Your task to perform on an android device: change your default location settings in chrome Image 0: 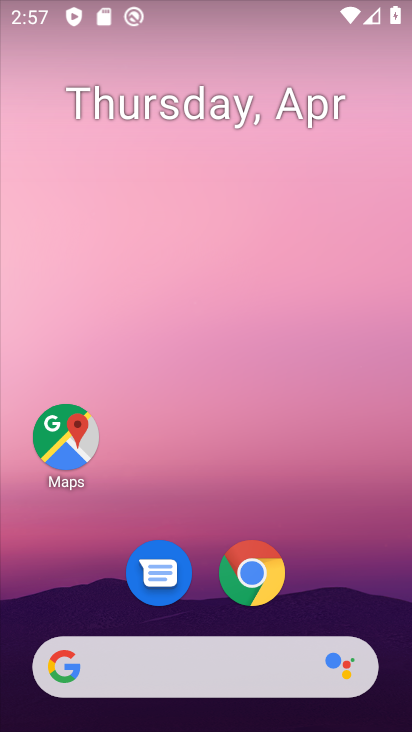
Step 0: drag from (347, 598) to (245, 56)
Your task to perform on an android device: change your default location settings in chrome Image 1: 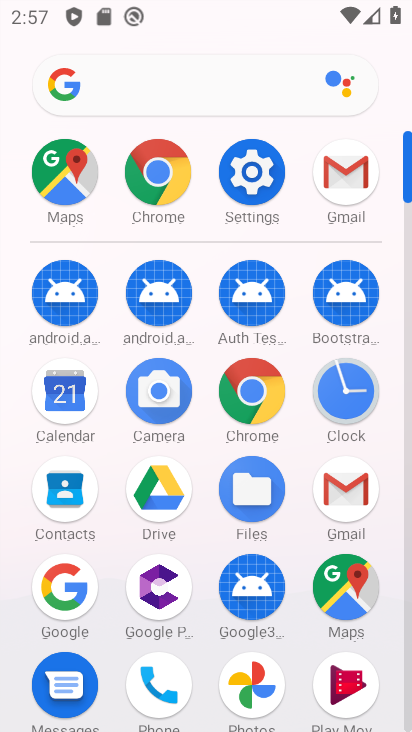
Step 1: click (267, 397)
Your task to perform on an android device: change your default location settings in chrome Image 2: 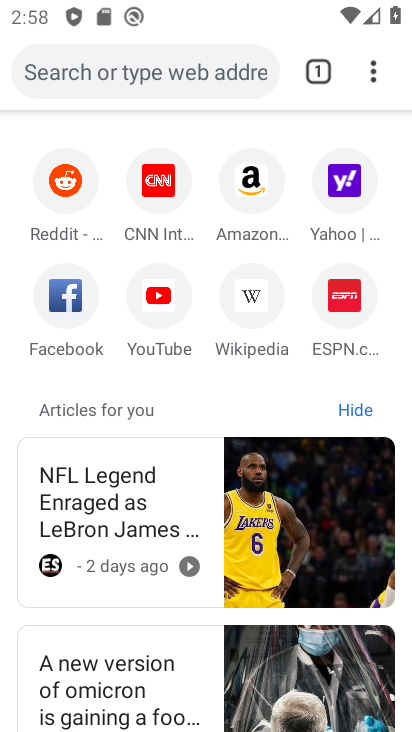
Step 2: click (367, 62)
Your task to perform on an android device: change your default location settings in chrome Image 3: 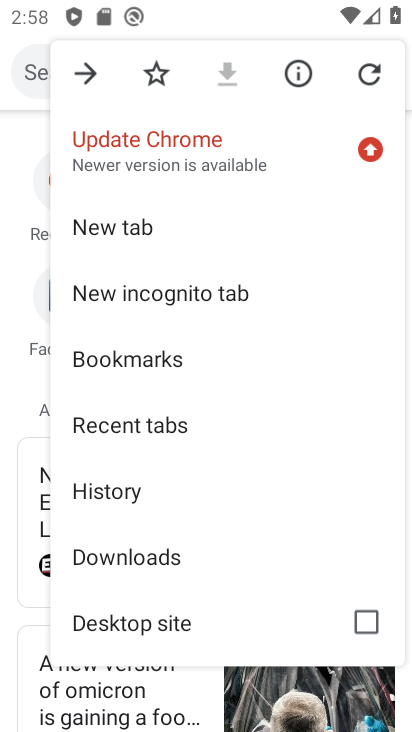
Step 3: drag from (192, 578) to (198, 293)
Your task to perform on an android device: change your default location settings in chrome Image 4: 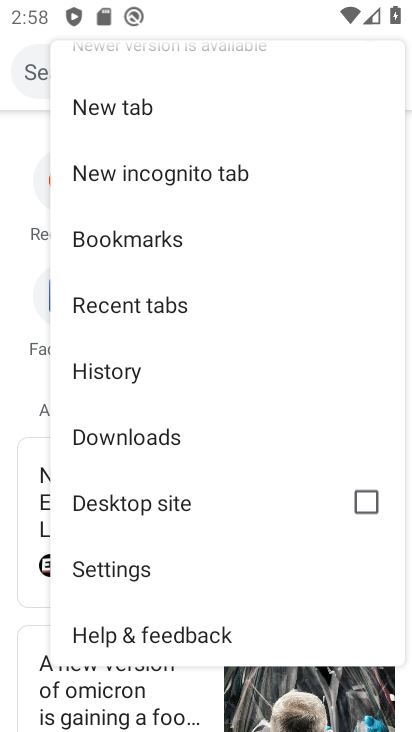
Step 4: click (135, 564)
Your task to perform on an android device: change your default location settings in chrome Image 5: 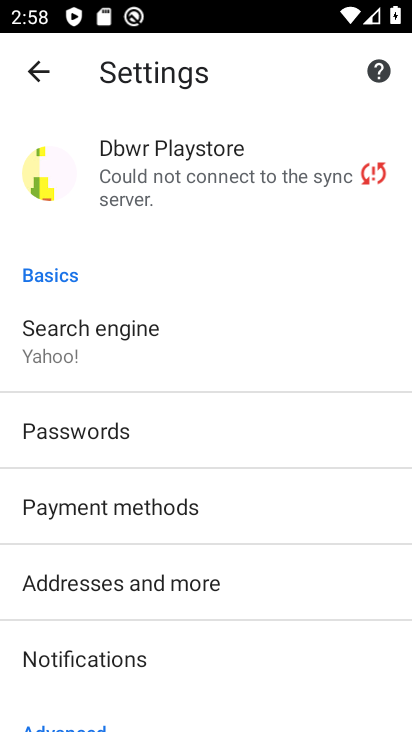
Step 5: click (173, 366)
Your task to perform on an android device: change your default location settings in chrome Image 6: 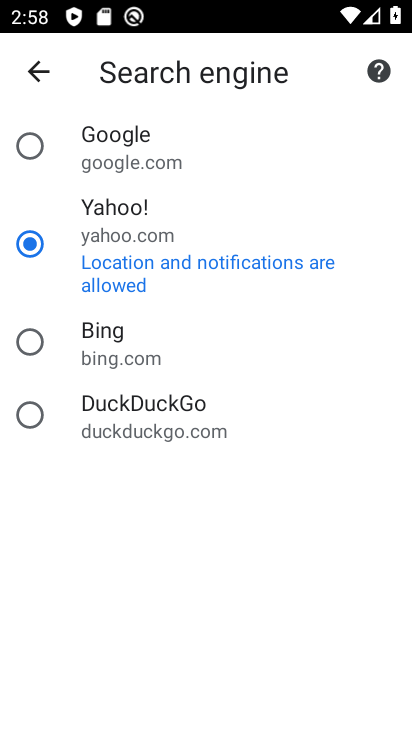
Step 6: click (151, 339)
Your task to perform on an android device: change your default location settings in chrome Image 7: 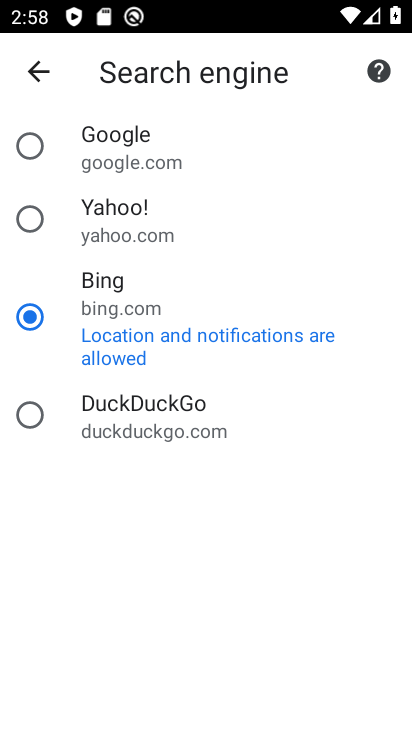
Step 7: task complete